Your task to perform on an android device: change the clock style Image 0: 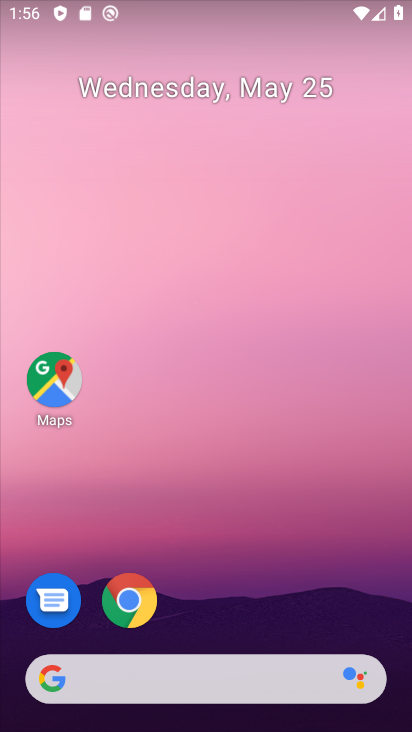
Step 0: drag from (276, 554) to (186, 218)
Your task to perform on an android device: change the clock style Image 1: 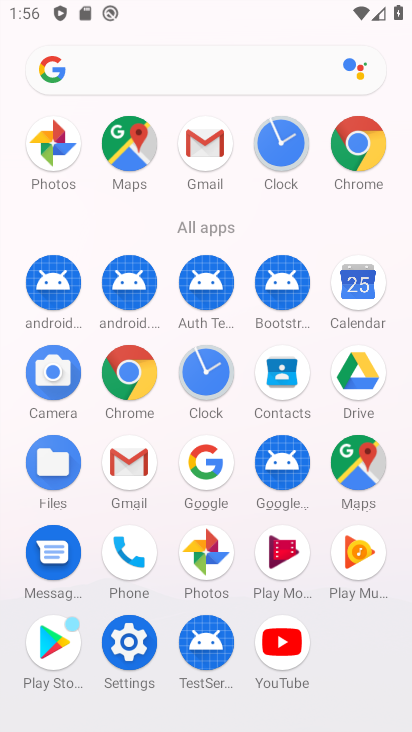
Step 1: click (214, 380)
Your task to perform on an android device: change the clock style Image 2: 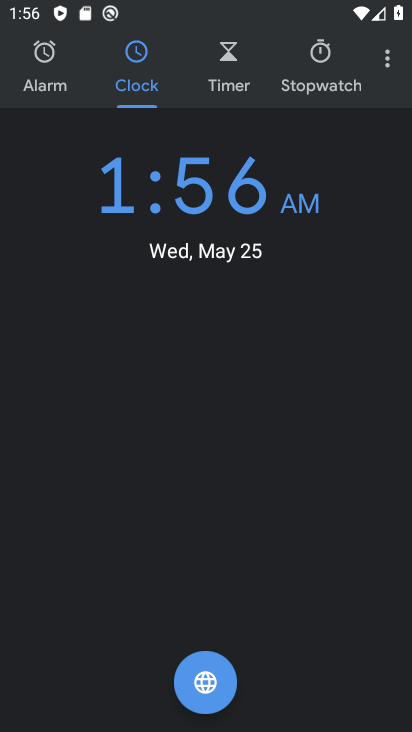
Step 2: click (391, 54)
Your task to perform on an android device: change the clock style Image 3: 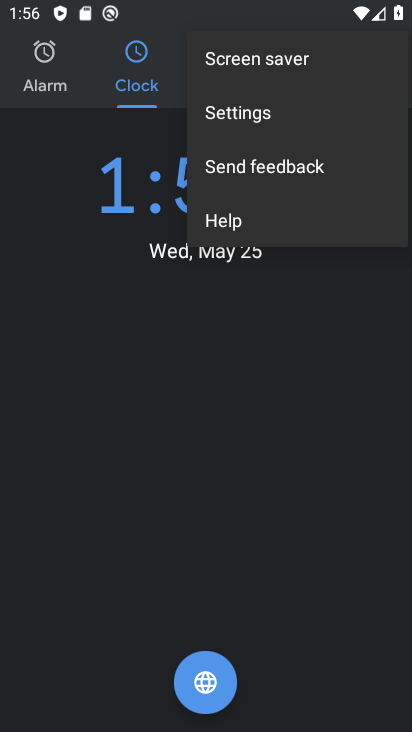
Step 3: click (233, 135)
Your task to perform on an android device: change the clock style Image 4: 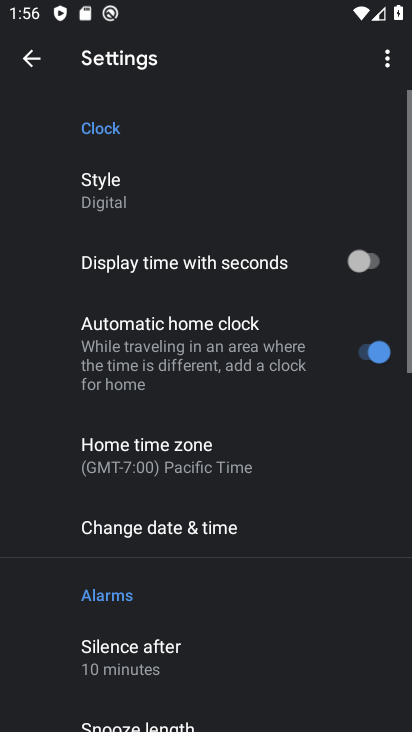
Step 4: click (136, 181)
Your task to perform on an android device: change the clock style Image 5: 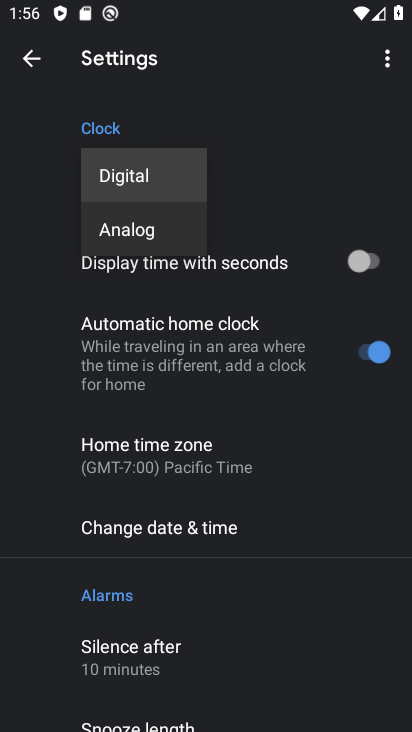
Step 5: click (160, 236)
Your task to perform on an android device: change the clock style Image 6: 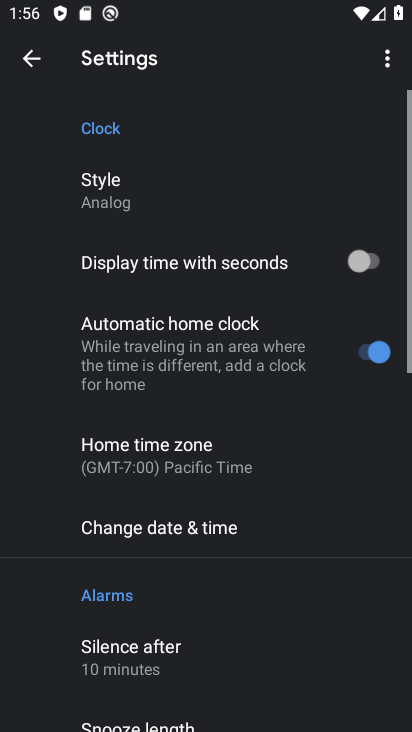
Step 6: task complete